Your task to perform on an android device: check data usage Image 0: 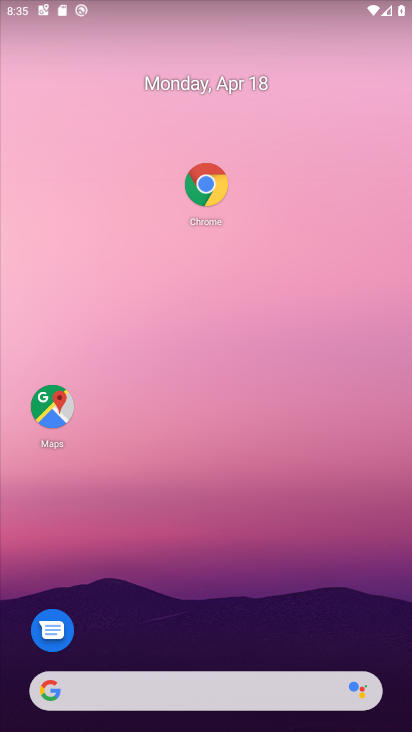
Step 0: drag from (256, 528) to (410, 186)
Your task to perform on an android device: check data usage Image 1: 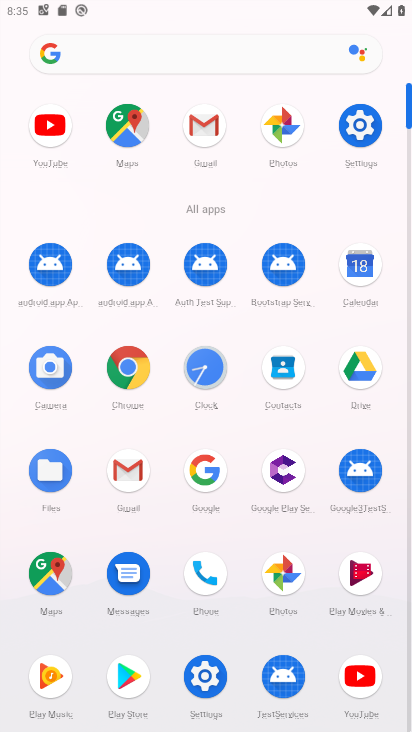
Step 1: click (365, 115)
Your task to perform on an android device: check data usage Image 2: 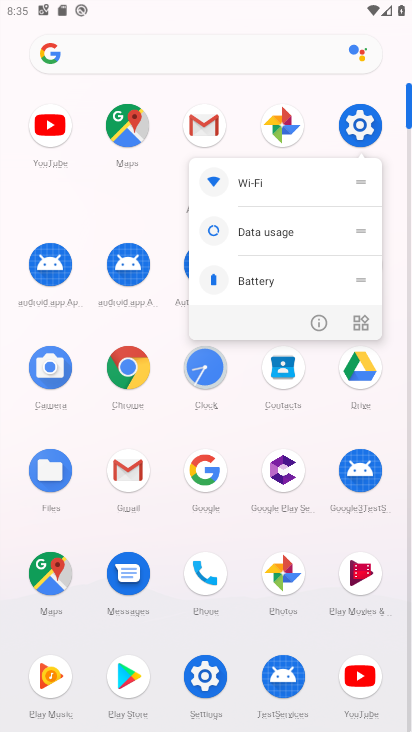
Step 2: click (366, 129)
Your task to perform on an android device: check data usage Image 3: 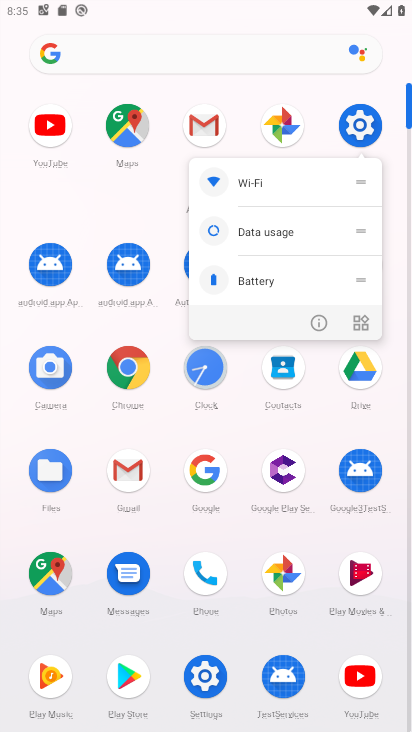
Step 3: click (375, 126)
Your task to perform on an android device: check data usage Image 4: 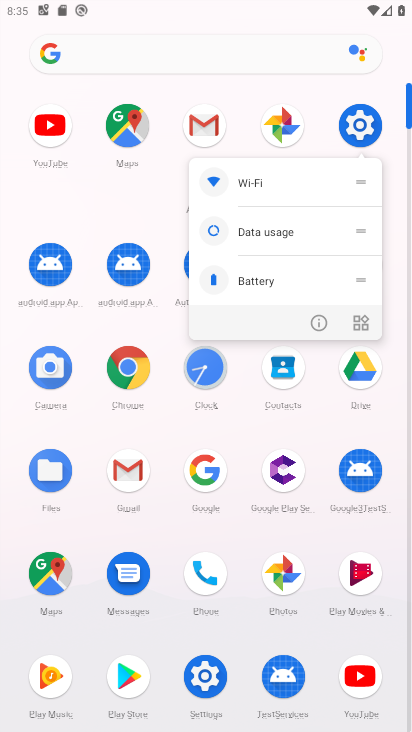
Step 4: click (346, 120)
Your task to perform on an android device: check data usage Image 5: 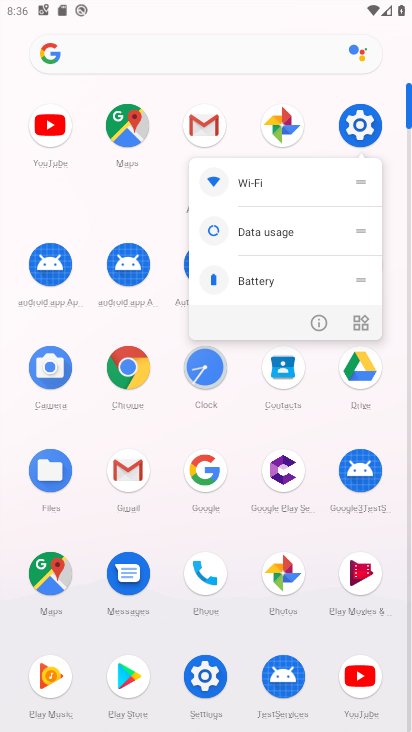
Step 5: click (362, 136)
Your task to perform on an android device: check data usage Image 6: 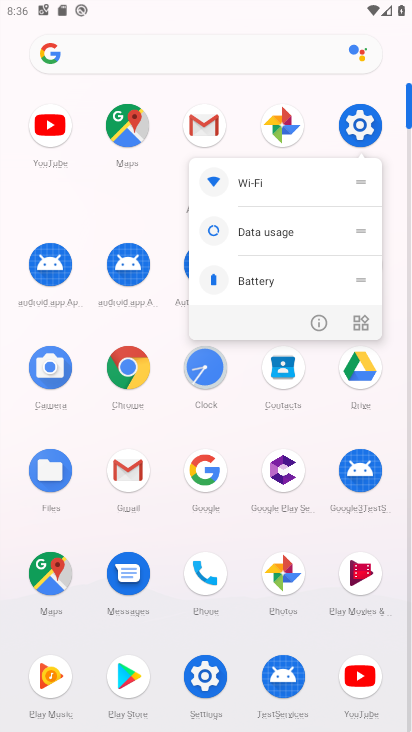
Step 6: click (365, 124)
Your task to perform on an android device: check data usage Image 7: 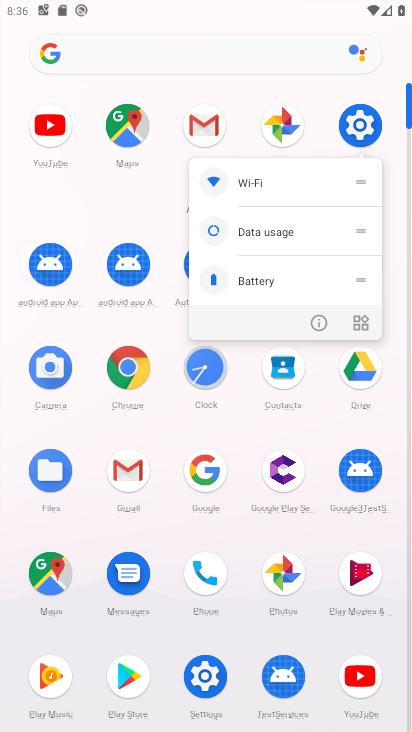
Step 7: click (365, 124)
Your task to perform on an android device: check data usage Image 8: 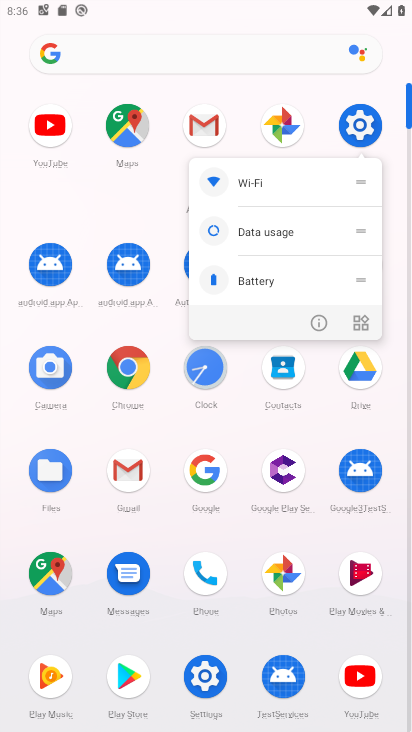
Step 8: click (354, 131)
Your task to perform on an android device: check data usage Image 9: 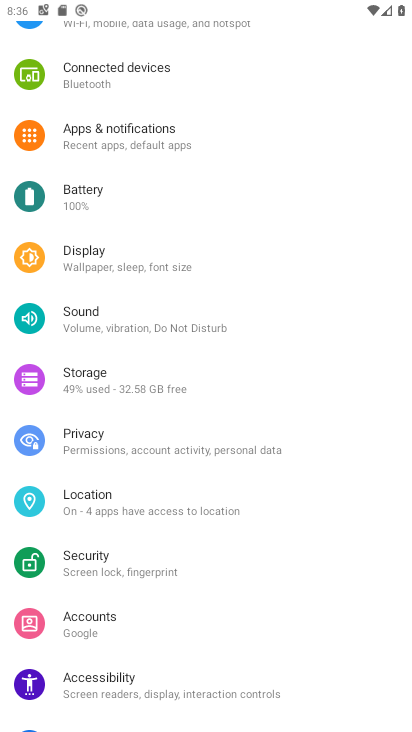
Step 9: drag from (203, 81) to (196, 523)
Your task to perform on an android device: check data usage Image 10: 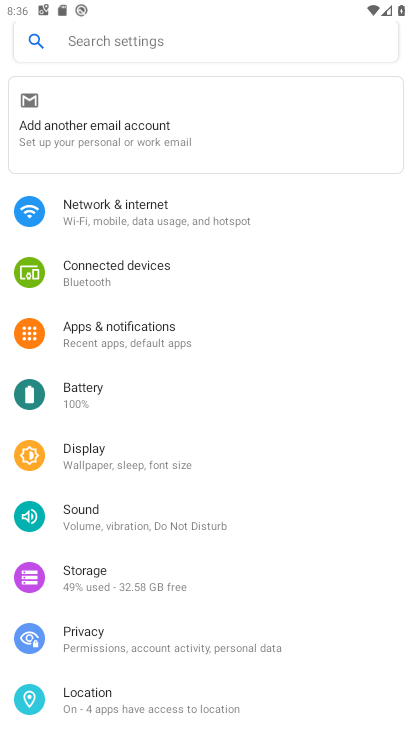
Step 10: click (201, 241)
Your task to perform on an android device: check data usage Image 11: 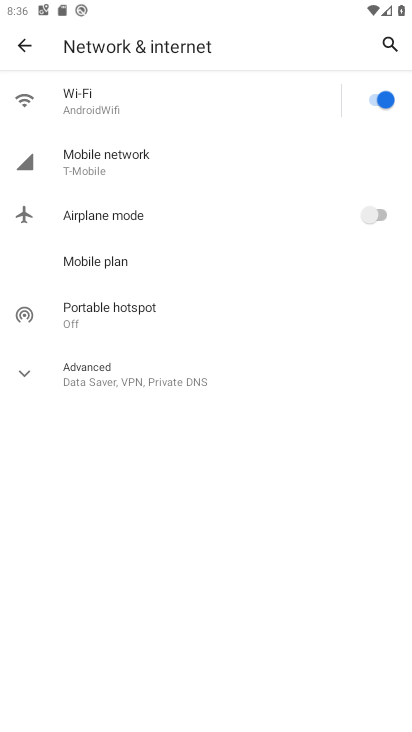
Step 11: click (145, 159)
Your task to perform on an android device: check data usage Image 12: 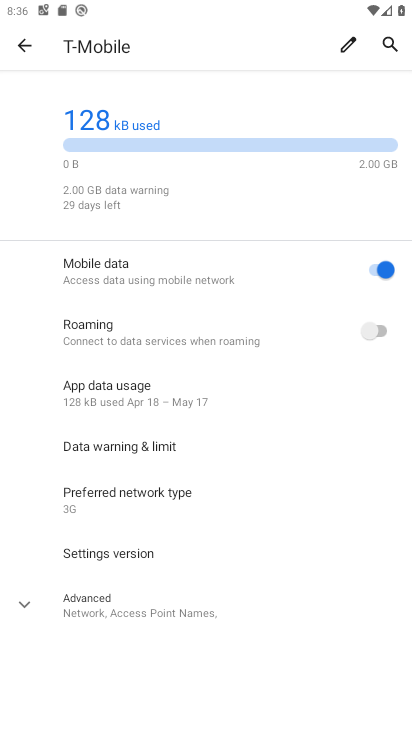
Step 12: click (198, 390)
Your task to perform on an android device: check data usage Image 13: 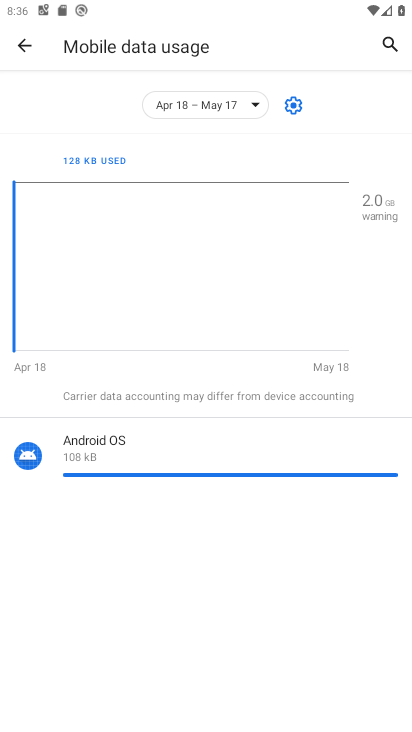
Step 13: task complete